Your task to perform on an android device: turn on sleep mode Image 0: 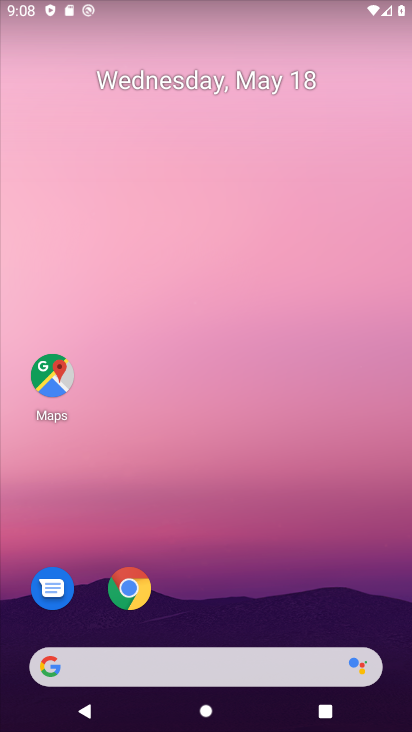
Step 0: drag from (244, 676) to (409, 102)
Your task to perform on an android device: turn on sleep mode Image 1: 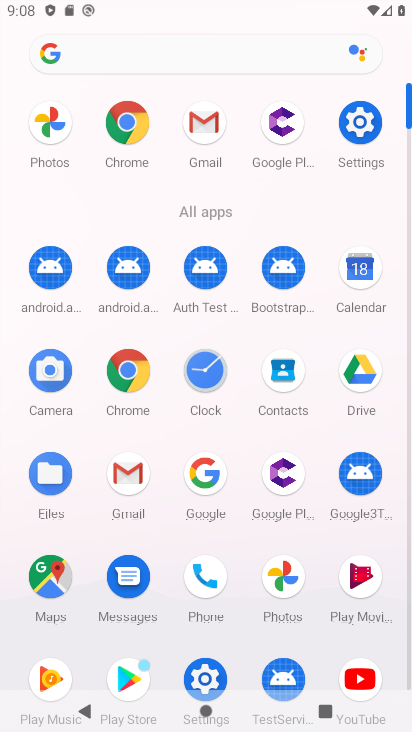
Step 1: click (364, 130)
Your task to perform on an android device: turn on sleep mode Image 2: 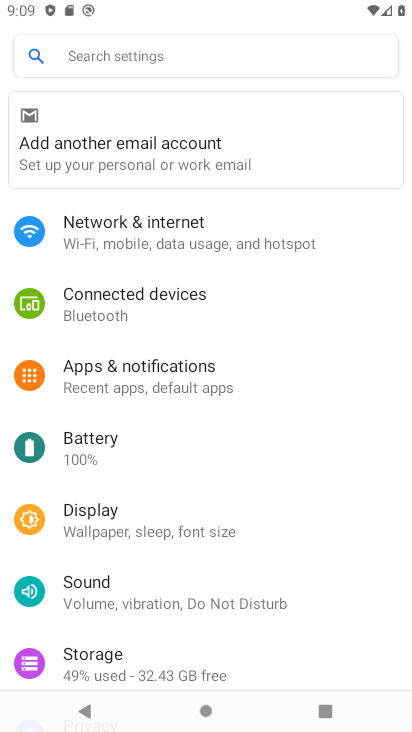
Step 2: click (124, 66)
Your task to perform on an android device: turn on sleep mode Image 3: 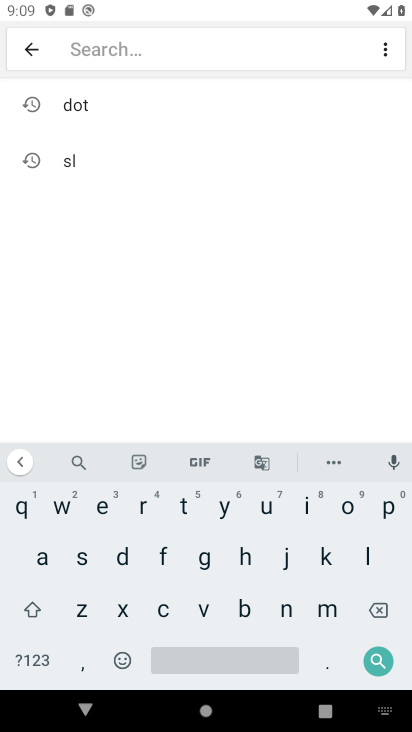
Step 3: click (80, 556)
Your task to perform on an android device: turn on sleep mode Image 4: 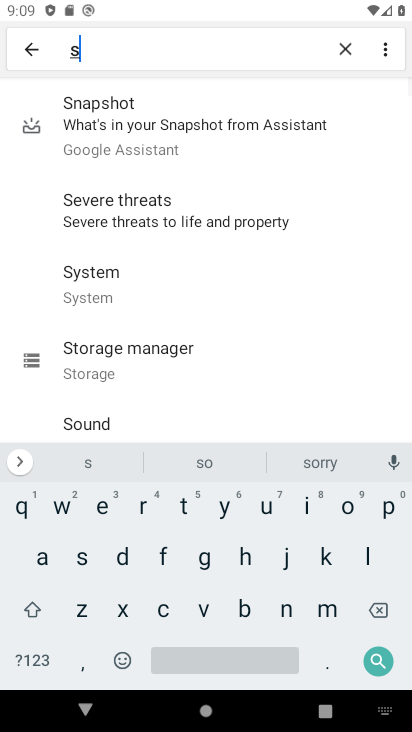
Step 4: click (364, 551)
Your task to perform on an android device: turn on sleep mode Image 5: 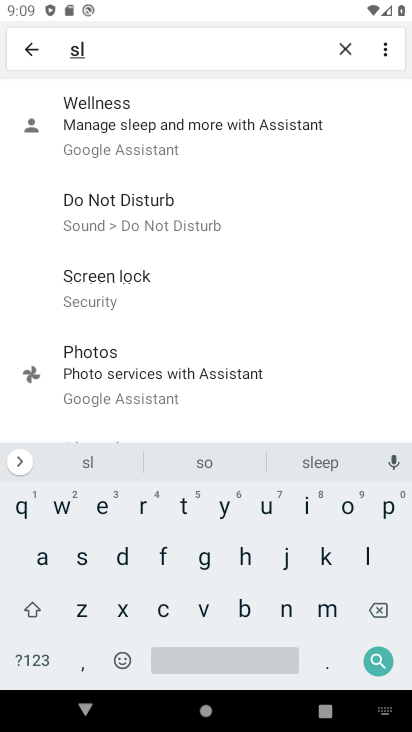
Step 5: click (95, 513)
Your task to perform on an android device: turn on sleep mode Image 6: 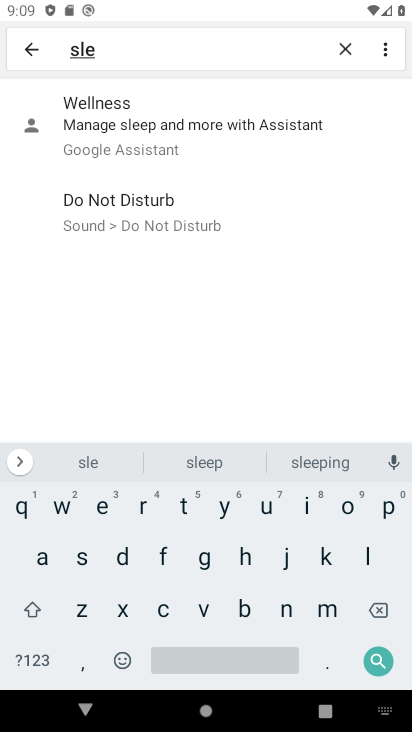
Step 6: click (145, 131)
Your task to perform on an android device: turn on sleep mode Image 7: 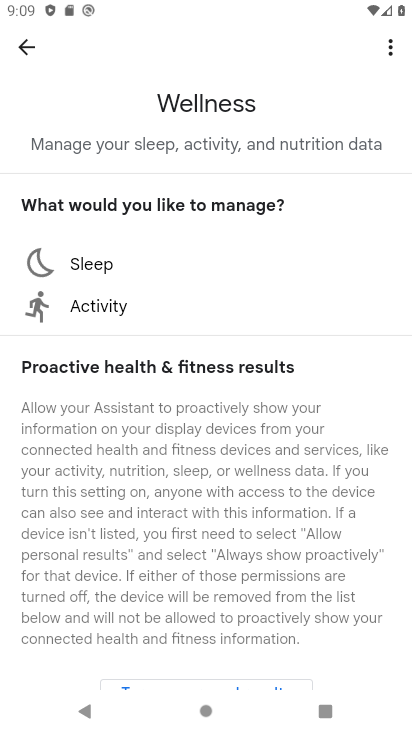
Step 7: click (120, 271)
Your task to perform on an android device: turn on sleep mode Image 8: 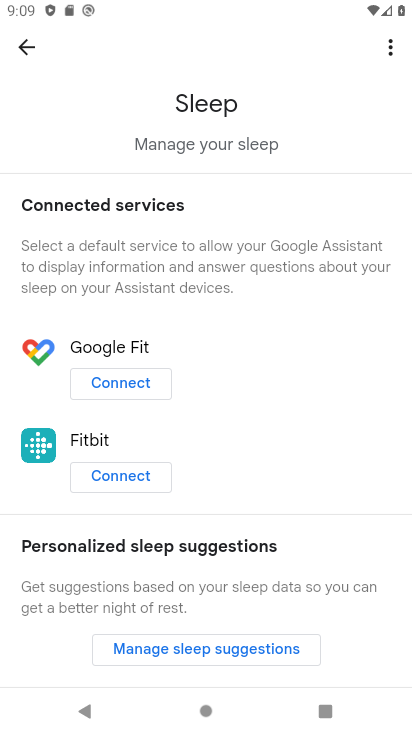
Step 8: task complete